Your task to perform on an android device: Check the news Image 0: 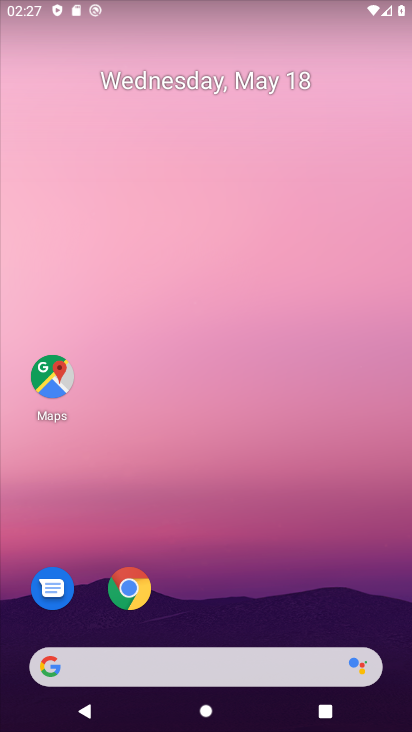
Step 0: click (115, 662)
Your task to perform on an android device: Check the news Image 1: 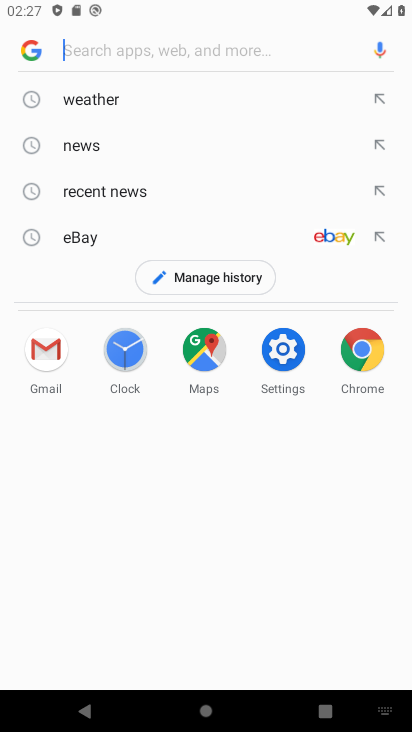
Step 1: click (78, 135)
Your task to perform on an android device: Check the news Image 2: 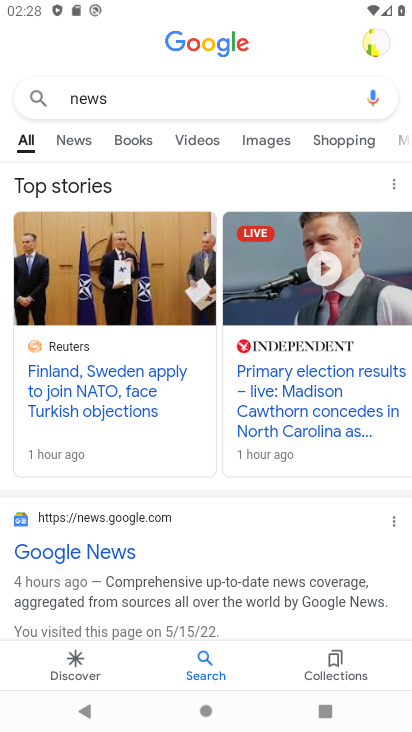
Step 2: task complete